Your task to perform on an android device: turn off translation in the chrome app Image 0: 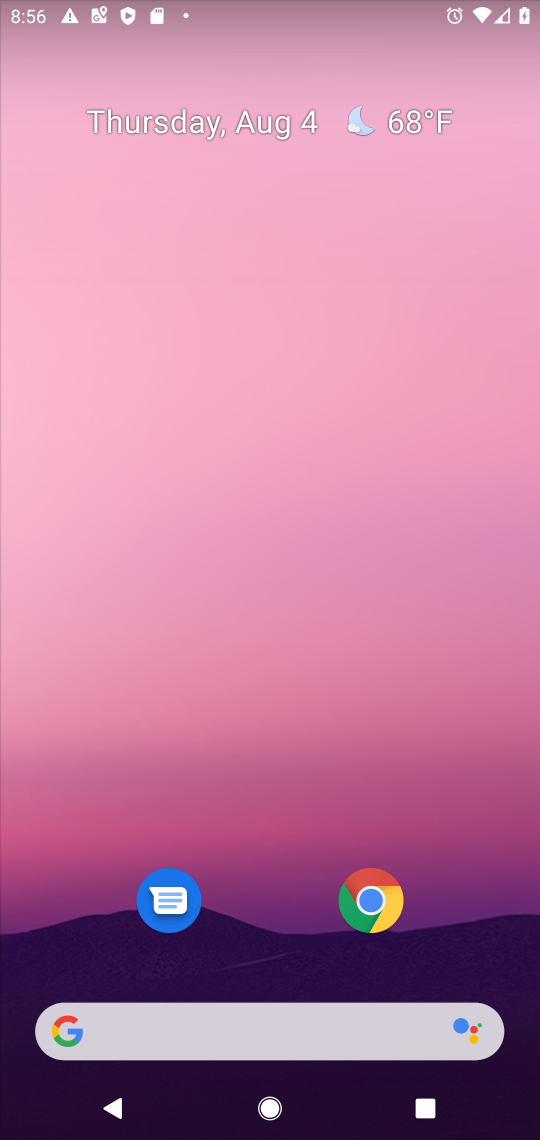
Step 0: click (368, 903)
Your task to perform on an android device: turn off translation in the chrome app Image 1: 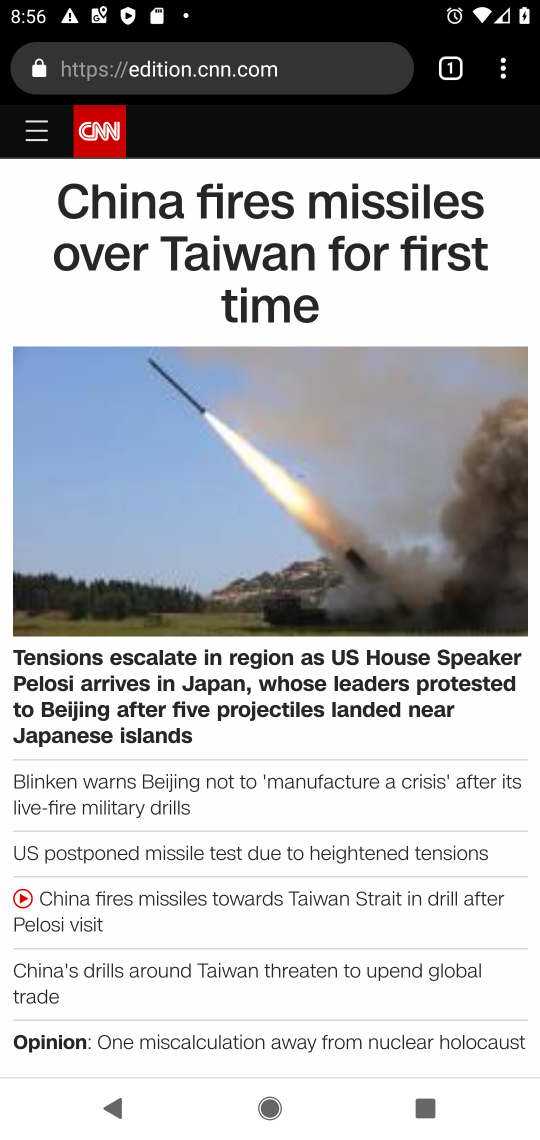
Step 1: drag from (507, 61) to (291, 907)
Your task to perform on an android device: turn off translation in the chrome app Image 2: 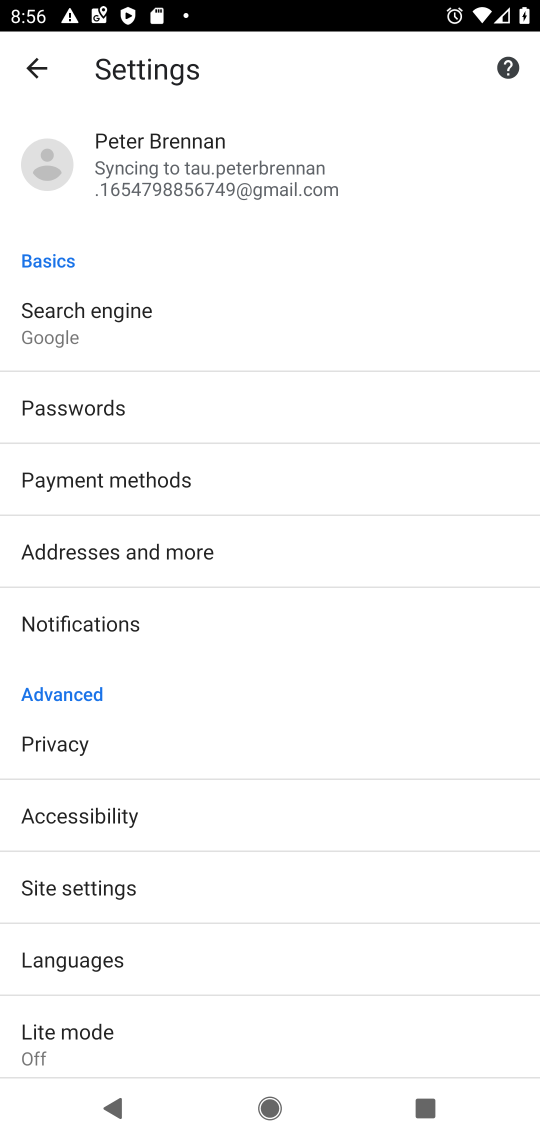
Step 2: click (112, 961)
Your task to perform on an android device: turn off translation in the chrome app Image 3: 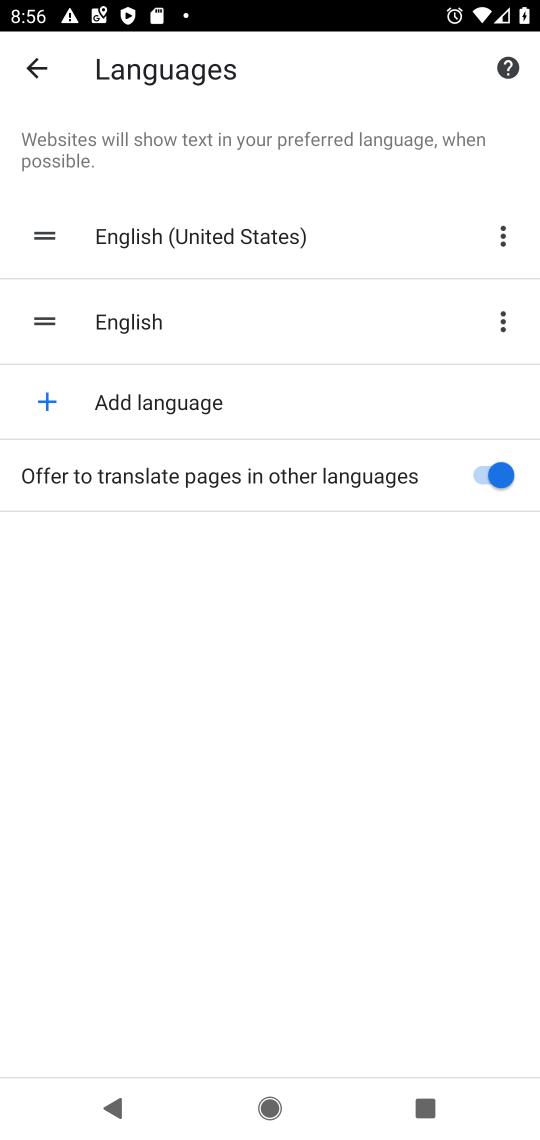
Step 3: click (493, 478)
Your task to perform on an android device: turn off translation in the chrome app Image 4: 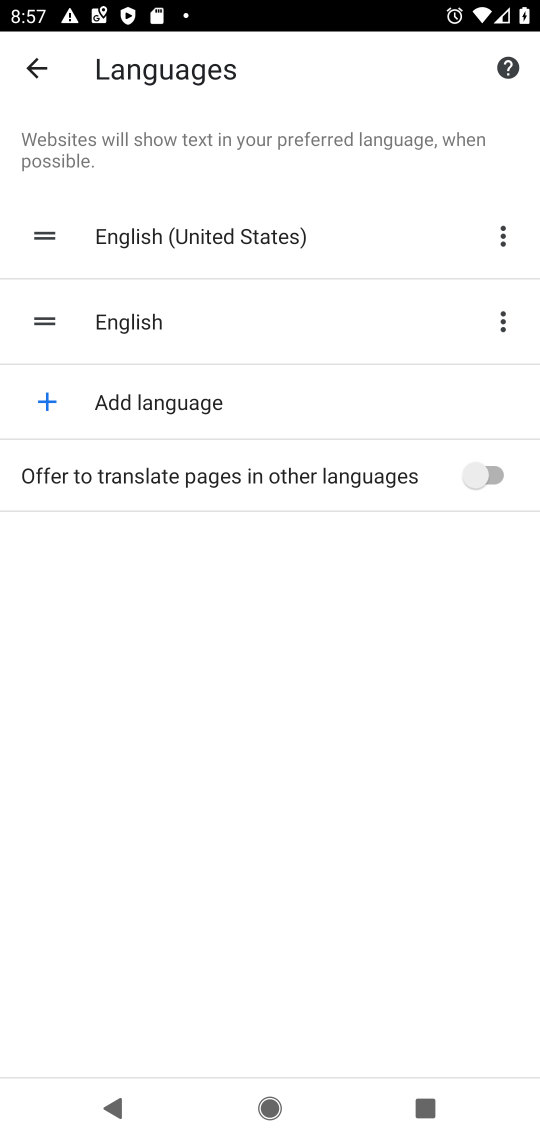
Step 4: task complete